Your task to perform on an android device: Show me the alarms in the clock app Image 0: 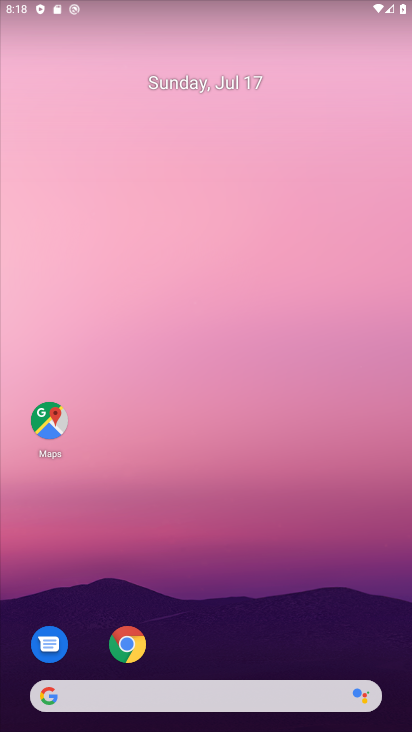
Step 0: drag from (228, 600) to (127, 4)
Your task to perform on an android device: Show me the alarms in the clock app Image 1: 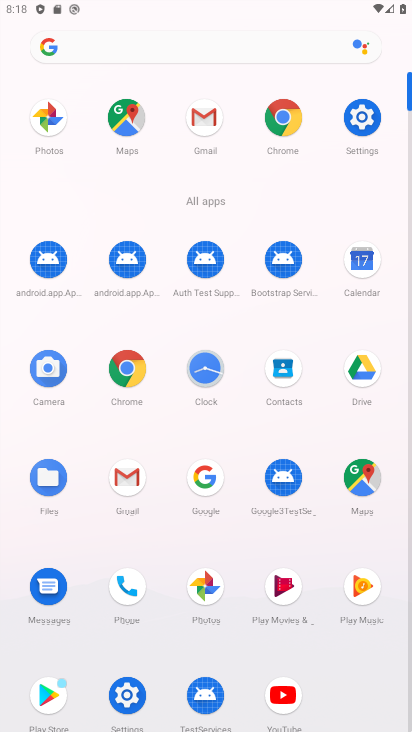
Step 1: click (203, 375)
Your task to perform on an android device: Show me the alarms in the clock app Image 2: 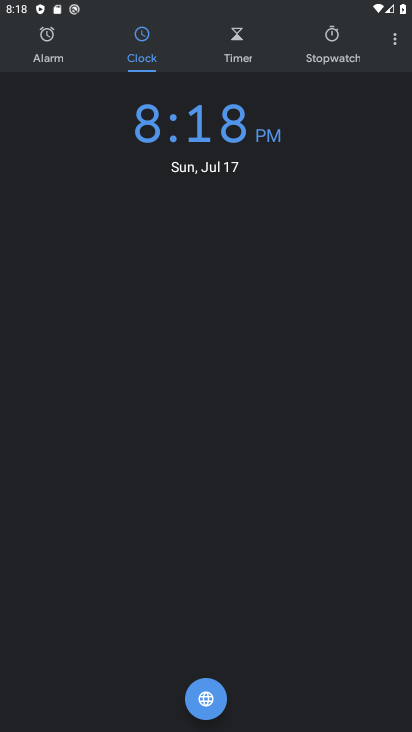
Step 2: click (45, 45)
Your task to perform on an android device: Show me the alarms in the clock app Image 3: 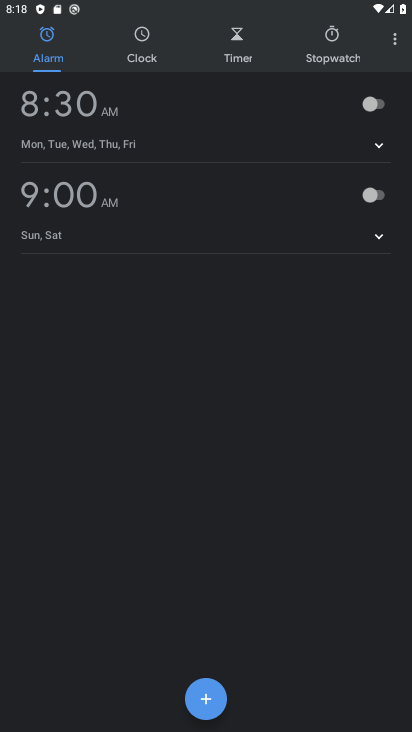
Step 3: task complete